Your task to perform on an android device: turn on the 12-hour format for clock Image 0: 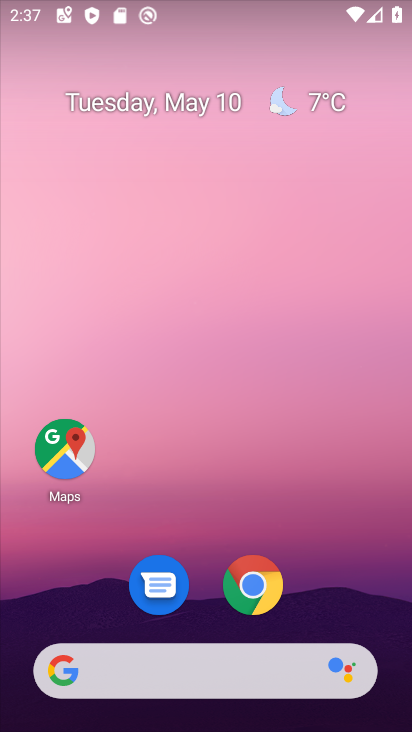
Step 0: drag from (230, 499) to (227, 43)
Your task to perform on an android device: turn on the 12-hour format for clock Image 1: 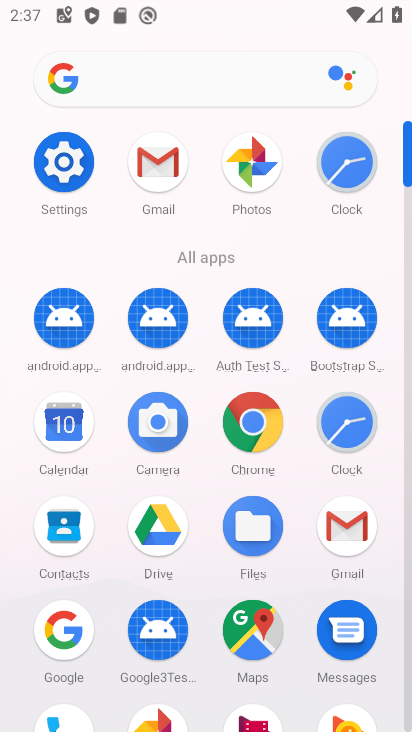
Step 1: click (336, 154)
Your task to perform on an android device: turn on the 12-hour format for clock Image 2: 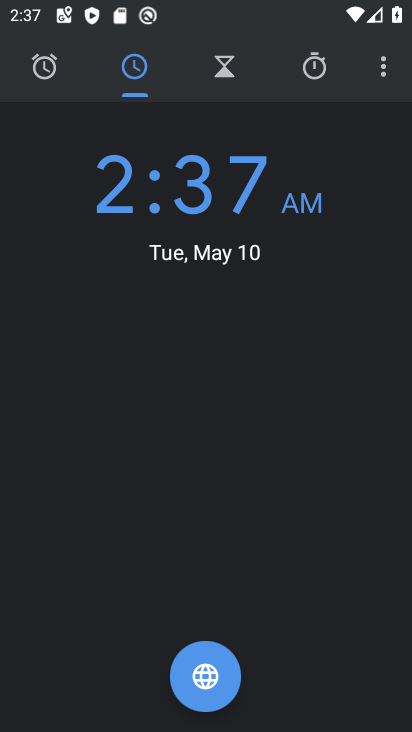
Step 2: click (385, 69)
Your task to perform on an android device: turn on the 12-hour format for clock Image 3: 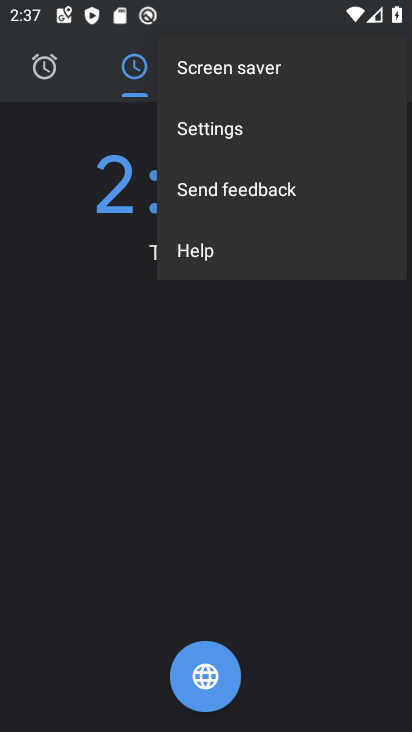
Step 3: click (283, 131)
Your task to perform on an android device: turn on the 12-hour format for clock Image 4: 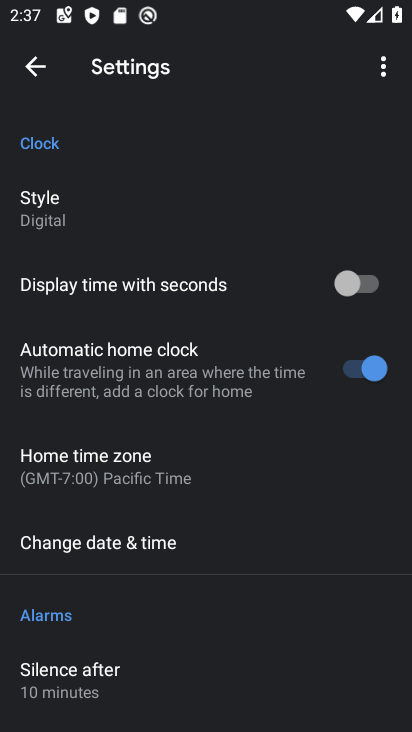
Step 4: click (264, 554)
Your task to perform on an android device: turn on the 12-hour format for clock Image 5: 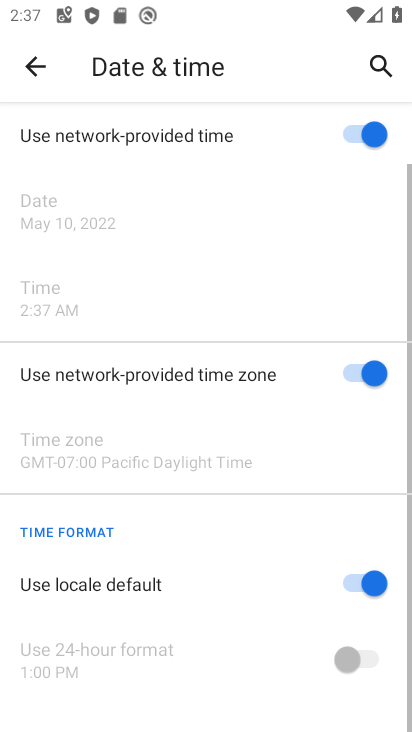
Step 5: click (255, 538)
Your task to perform on an android device: turn on the 12-hour format for clock Image 6: 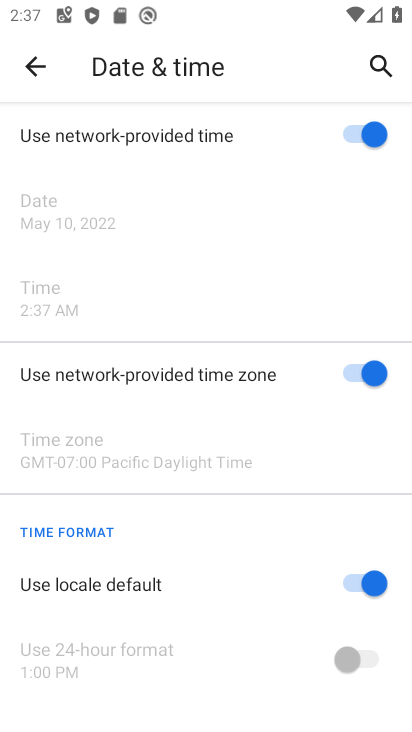
Step 6: task complete